Your task to perform on an android device: turn smart compose on in the gmail app Image 0: 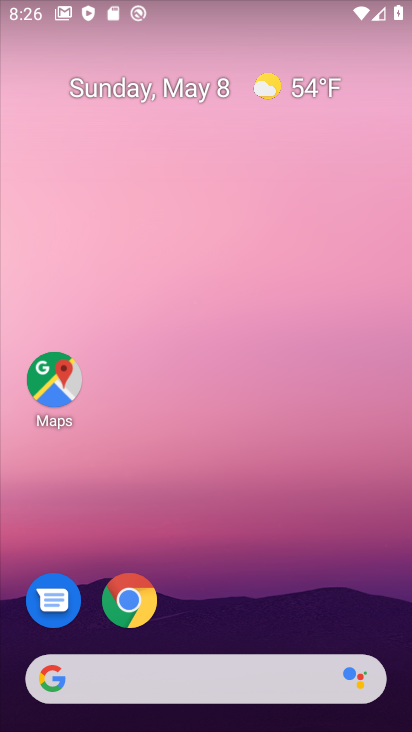
Step 0: click (264, 172)
Your task to perform on an android device: turn smart compose on in the gmail app Image 1: 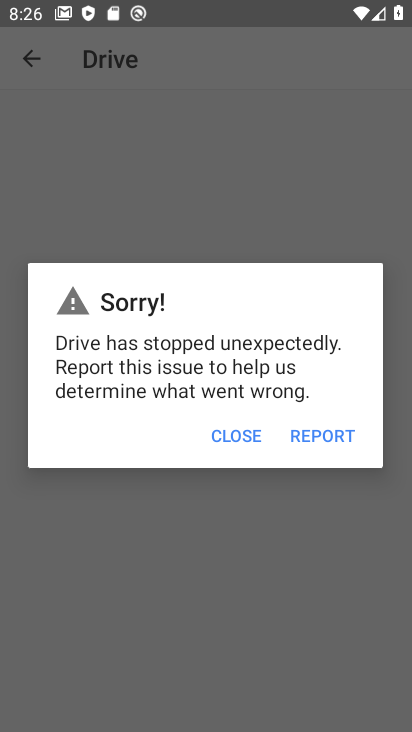
Step 1: press home button
Your task to perform on an android device: turn smart compose on in the gmail app Image 2: 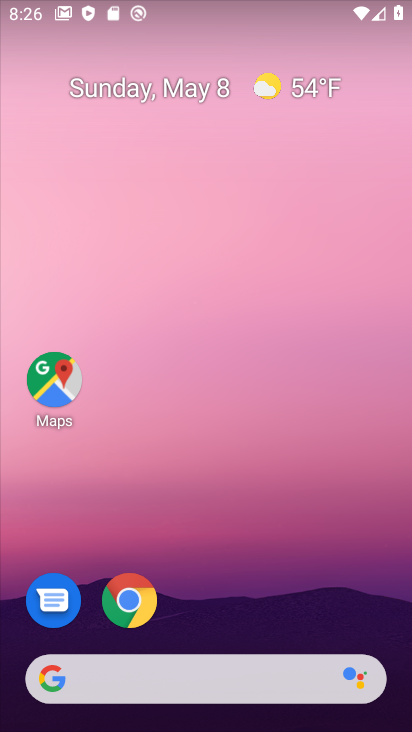
Step 2: drag from (218, 617) to (241, 162)
Your task to perform on an android device: turn smart compose on in the gmail app Image 3: 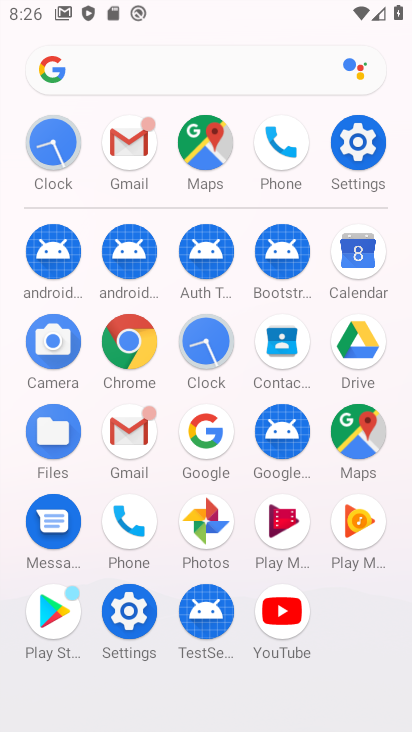
Step 3: click (115, 148)
Your task to perform on an android device: turn smart compose on in the gmail app Image 4: 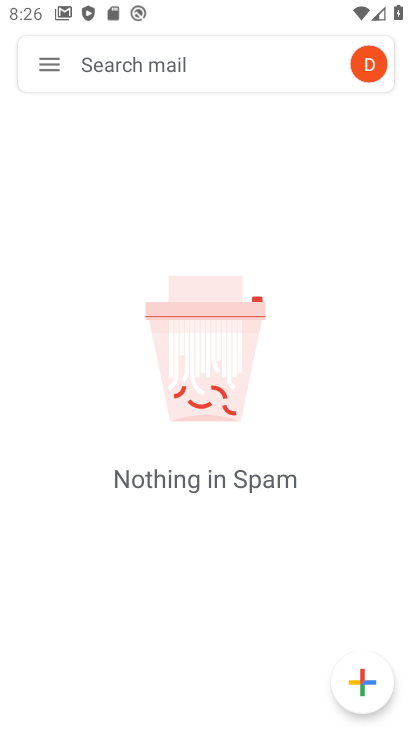
Step 4: click (60, 77)
Your task to perform on an android device: turn smart compose on in the gmail app Image 5: 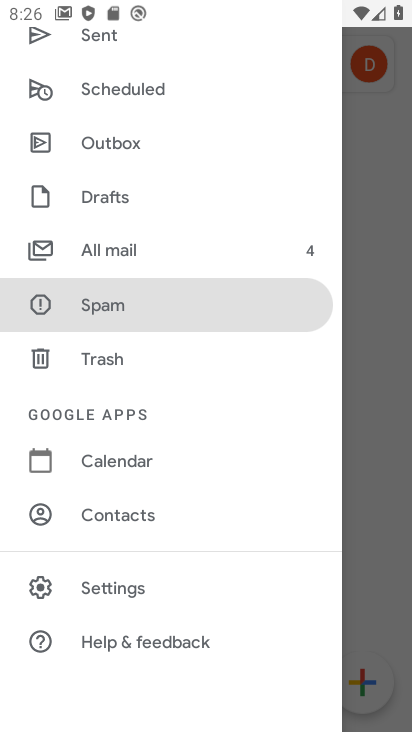
Step 5: click (155, 600)
Your task to perform on an android device: turn smart compose on in the gmail app Image 6: 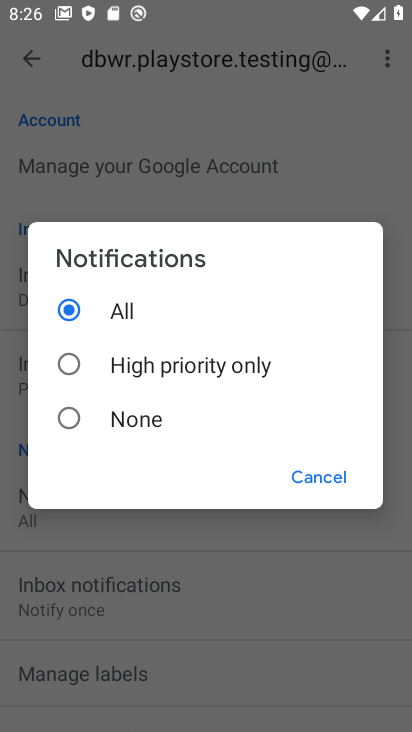
Step 6: click (341, 485)
Your task to perform on an android device: turn smart compose on in the gmail app Image 7: 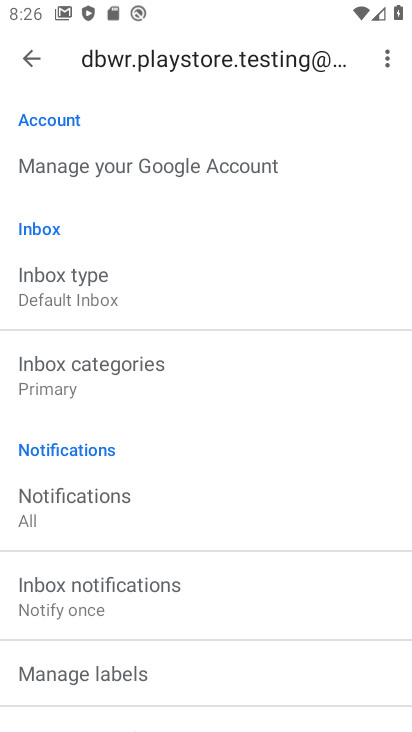
Step 7: task complete